Your task to perform on an android device: Go to notification settings Image 0: 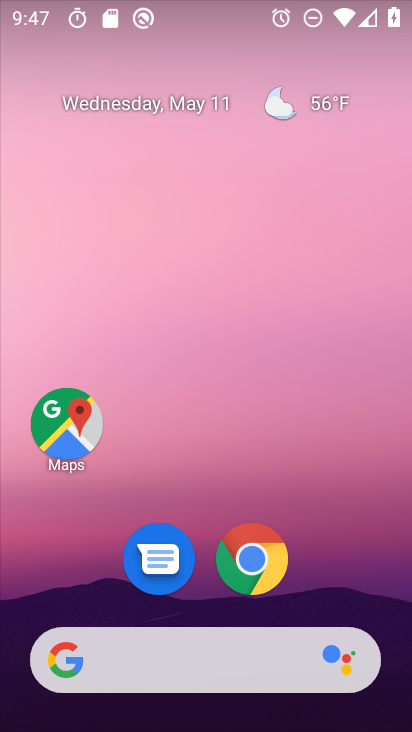
Step 0: drag from (400, 464) to (333, 163)
Your task to perform on an android device: Go to notification settings Image 1: 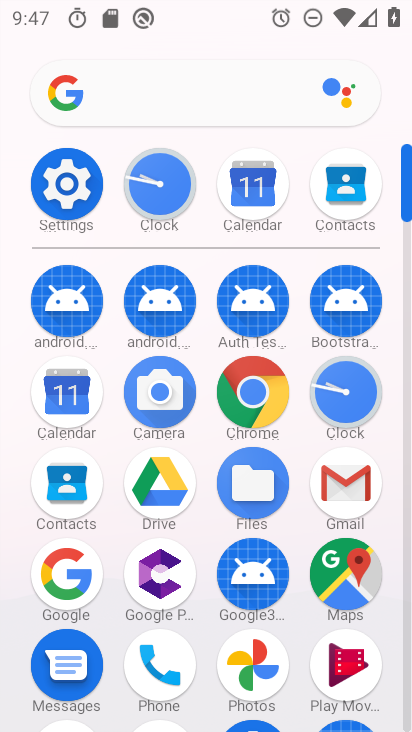
Step 1: click (44, 179)
Your task to perform on an android device: Go to notification settings Image 2: 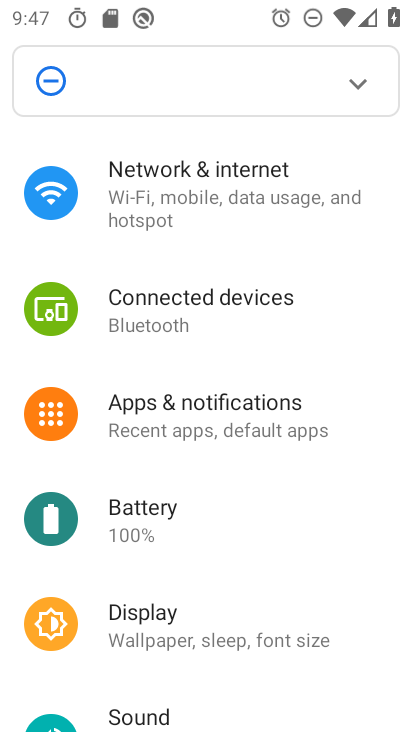
Step 2: click (236, 420)
Your task to perform on an android device: Go to notification settings Image 3: 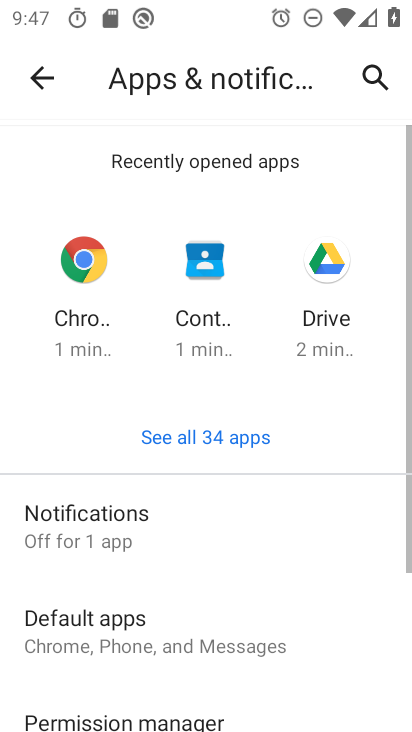
Step 3: task complete